Your task to perform on an android device: set default search engine in the chrome app Image 0: 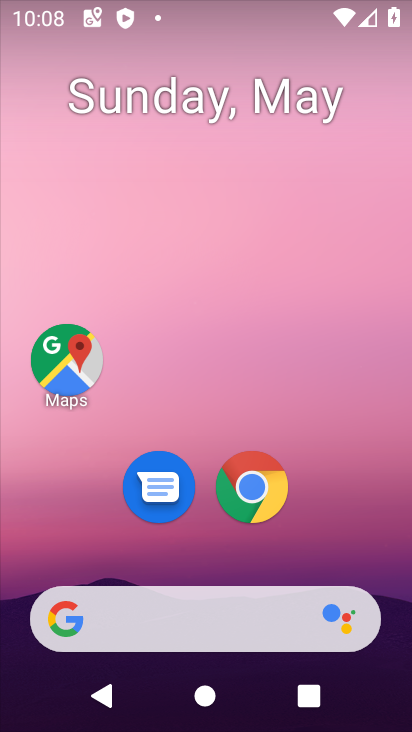
Step 0: drag from (356, 416) to (348, 271)
Your task to perform on an android device: set default search engine in the chrome app Image 1: 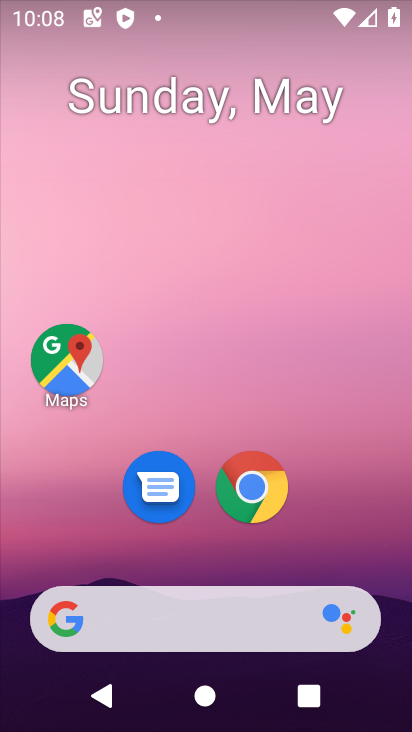
Step 1: drag from (363, 538) to (362, 150)
Your task to perform on an android device: set default search engine in the chrome app Image 2: 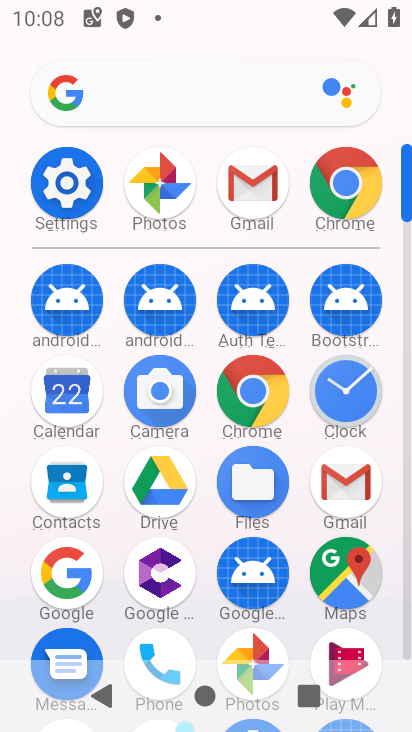
Step 2: click (268, 409)
Your task to perform on an android device: set default search engine in the chrome app Image 3: 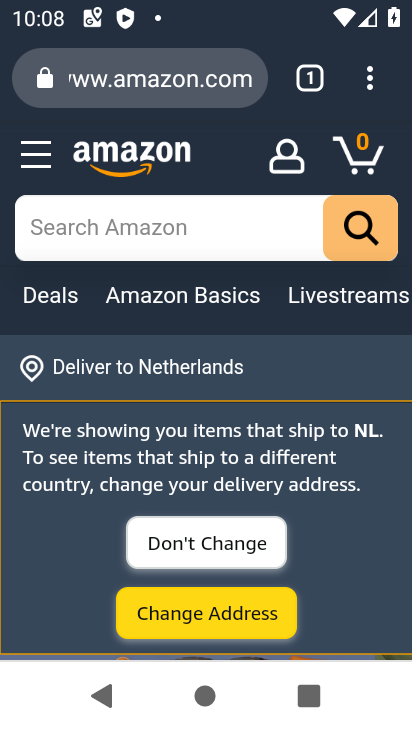
Step 3: click (371, 90)
Your task to perform on an android device: set default search engine in the chrome app Image 4: 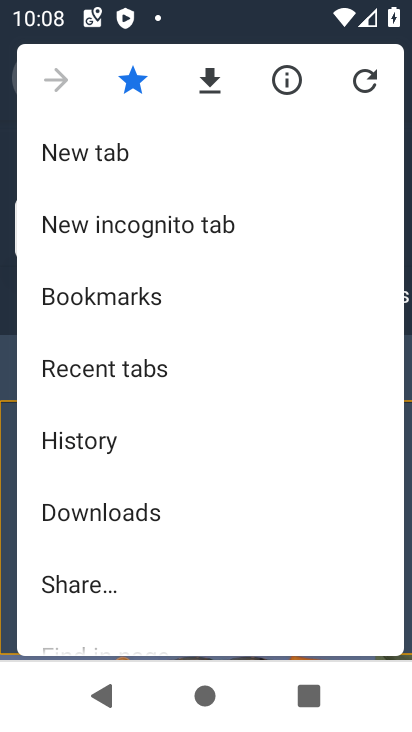
Step 4: drag from (285, 525) to (276, 385)
Your task to perform on an android device: set default search engine in the chrome app Image 5: 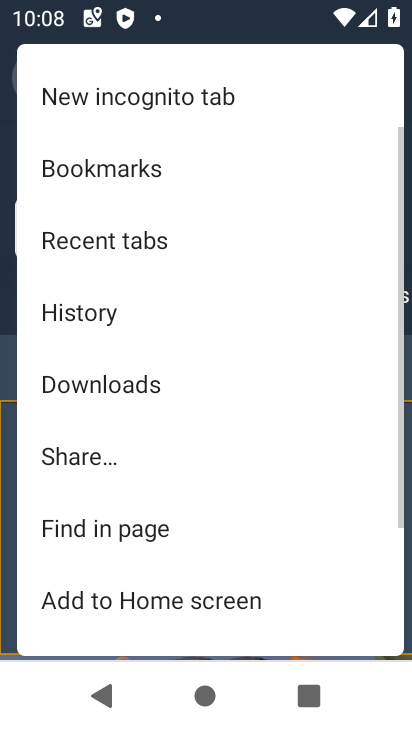
Step 5: drag from (291, 543) to (290, 407)
Your task to perform on an android device: set default search engine in the chrome app Image 6: 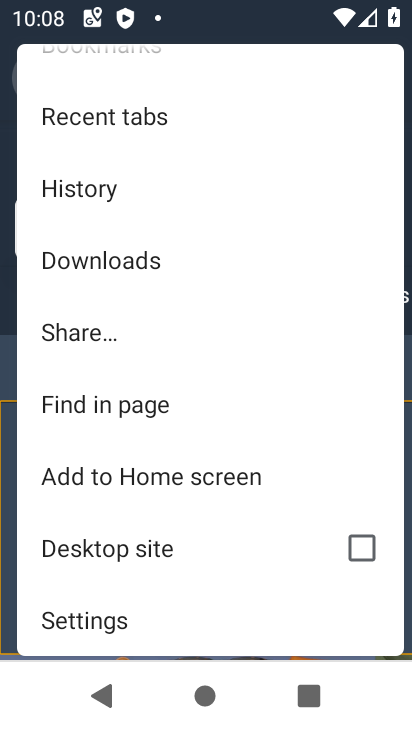
Step 6: drag from (258, 584) to (251, 427)
Your task to perform on an android device: set default search engine in the chrome app Image 7: 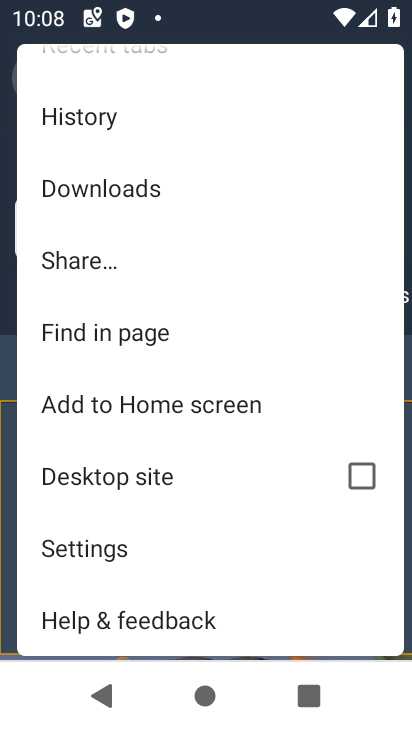
Step 7: click (122, 567)
Your task to perform on an android device: set default search engine in the chrome app Image 8: 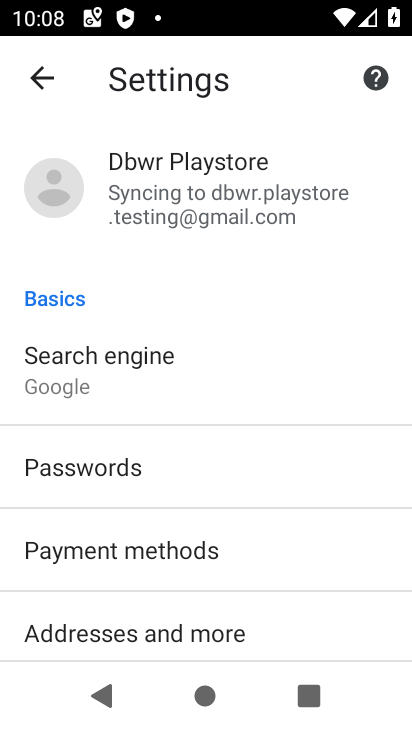
Step 8: drag from (278, 610) to (281, 487)
Your task to perform on an android device: set default search engine in the chrome app Image 9: 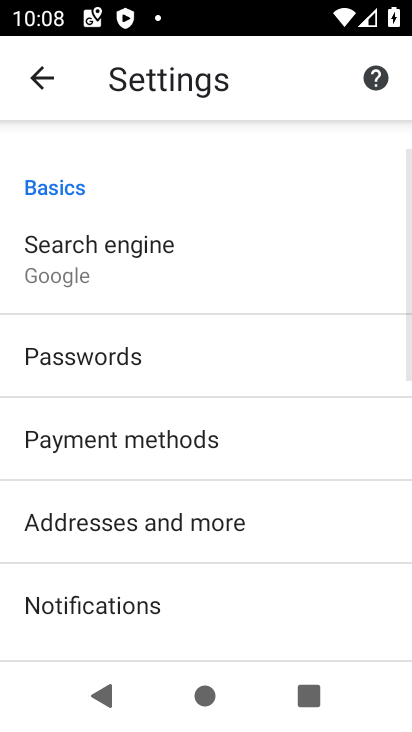
Step 9: drag from (317, 612) to (307, 495)
Your task to perform on an android device: set default search engine in the chrome app Image 10: 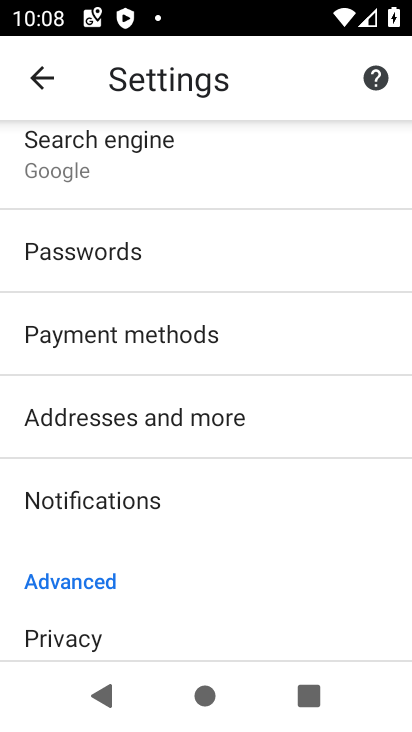
Step 10: drag from (318, 616) to (308, 495)
Your task to perform on an android device: set default search engine in the chrome app Image 11: 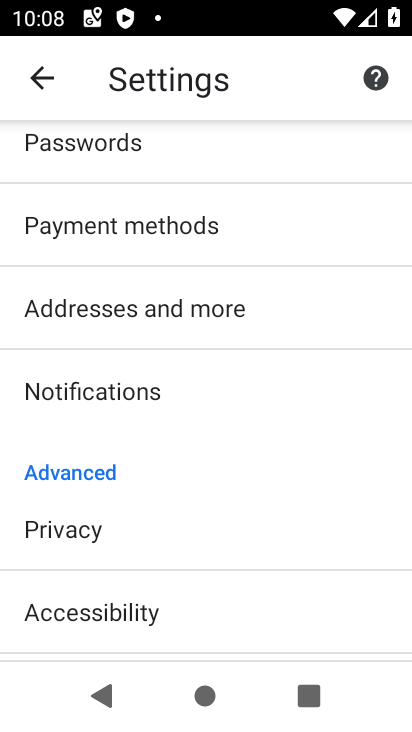
Step 11: drag from (305, 598) to (297, 483)
Your task to perform on an android device: set default search engine in the chrome app Image 12: 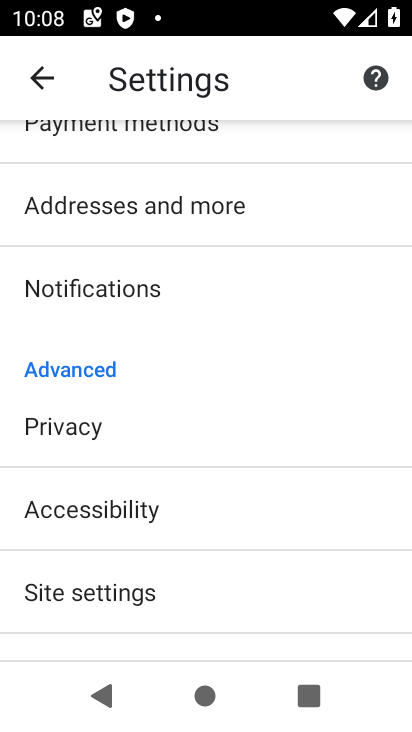
Step 12: drag from (300, 621) to (296, 509)
Your task to perform on an android device: set default search engine in the chrome app Image 13: 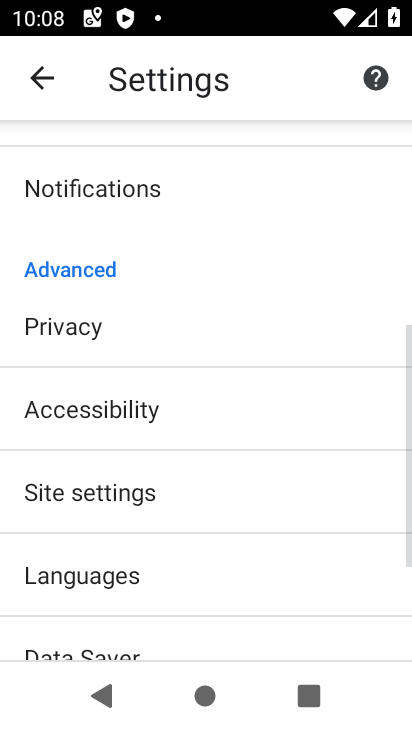
Step 13: drag from (310, 601) to (313, 510)
Your task to perform on an android device: set default search engine in the chrome app Image 14: 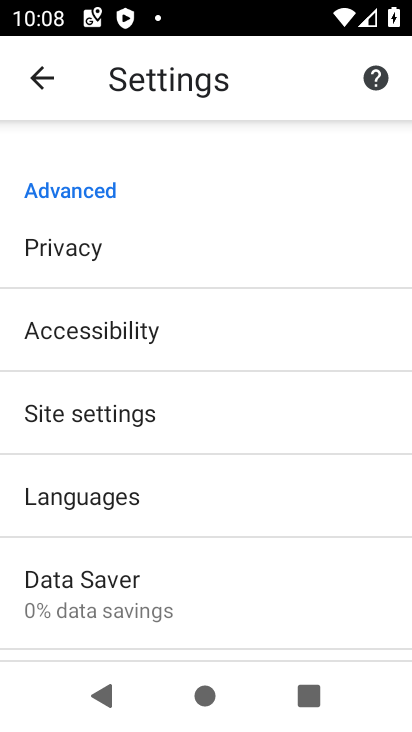
Step 14: drag from (320, 594) to (317, 444)
Your task to perform on an android device: set default search engine in the chrome app Image 15: 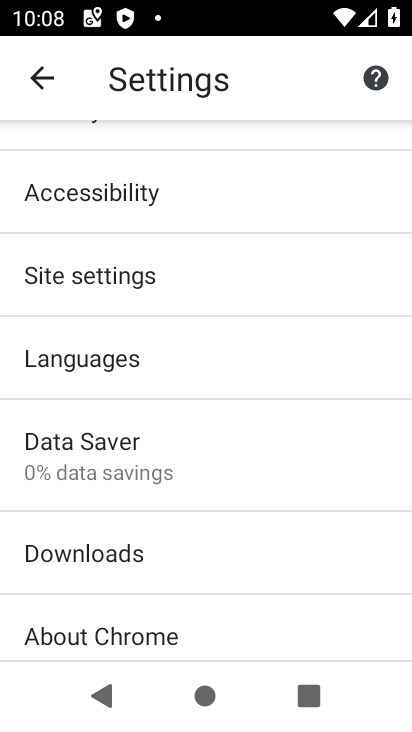
Step 15: drag from (294, 339) to (290, 482)
Your task to perform on an android device: set default search engine in the chrome app Image 16: 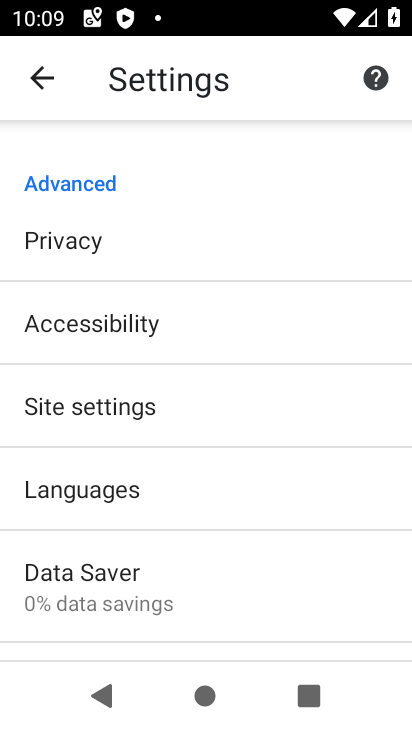
Step 16: drag from (281, 310) to (284, 441)
Your task to perform on an android device: set default search engine in the chrome app Image 17: 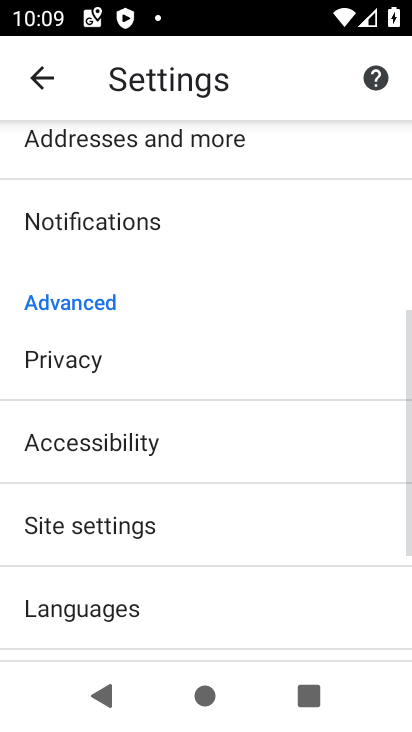
Step 17: drag from (263, 290) to (263, 434)
Your task to perform on an android device: set default search engine in the chrome app Image 18: 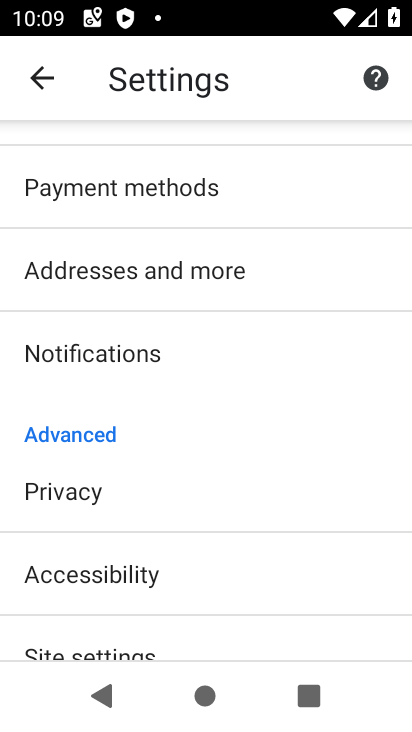
Step 18: drag from (264, 263) to (282, 394)
Your task to perform on an android device: set default search engine in the chrome app Image 19: 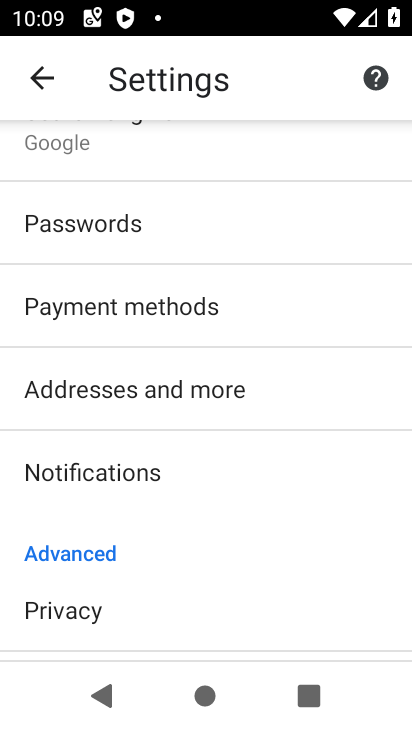
Step 19: drag from (268, 246) to (268, 379)
Your task to perform on an android device: set default search engine in the chrome app Image 20: 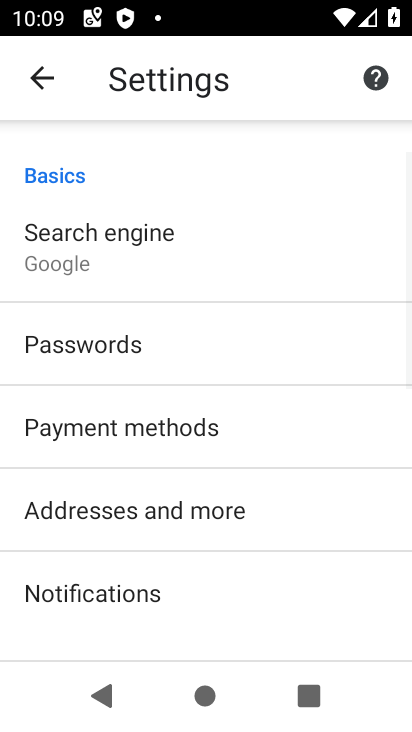
Step 20: click (106, 263)
Your task to perform on an android device: set default search engine in the chrome app Image 21: 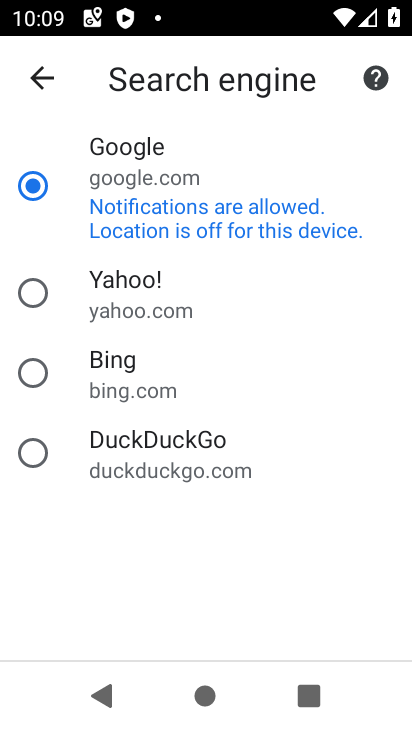
Step 21: click (117, 373)
Your task to perform on an android device: set default search engine in the chrome app Image 22: 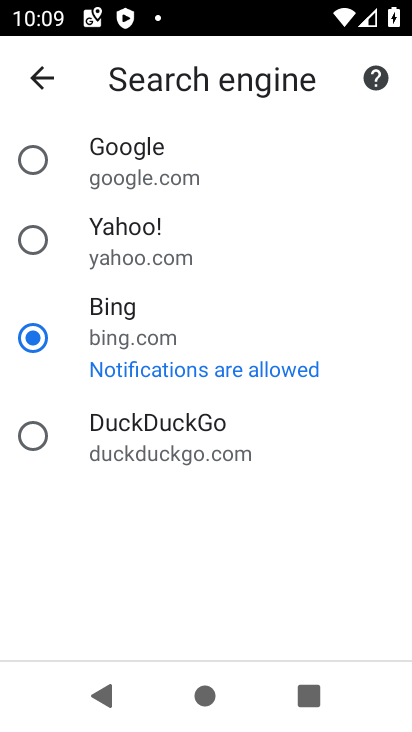
Step 22: task complete